Your task to perform on an android device: add a label to a message in the gmail app Image 0: 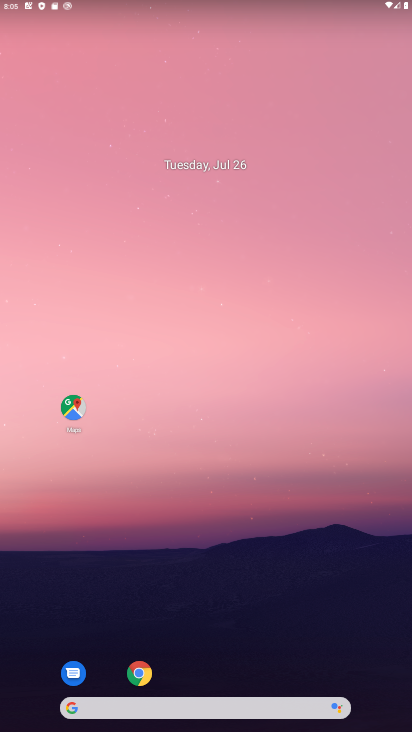
Step 0: drag from (332, 591) to (405, 92)
Your task to perform on an android device: add a label to a message in the gmail app Image 1: 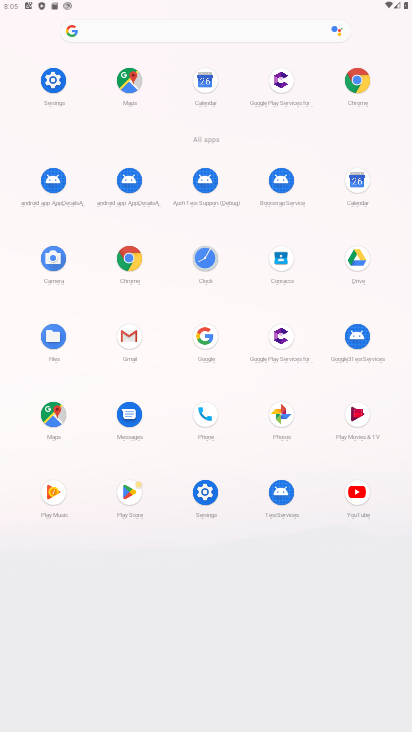
Step 1: click (134, 335)
Your task to perform on an android device: add a label to a message in the gmail app Image 2: 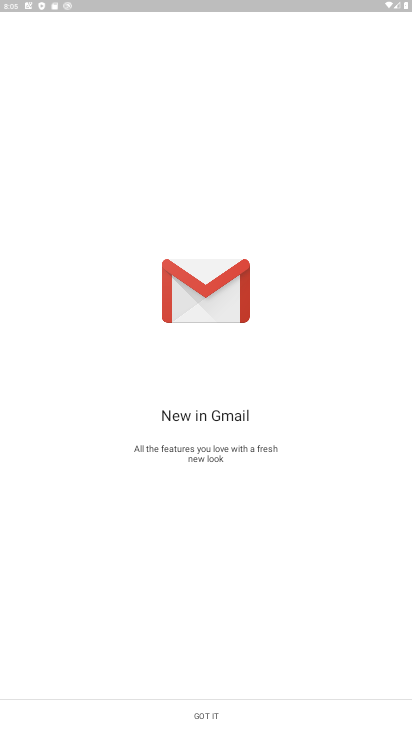
Step 2: click (220, 712)
Your task to perform on an android device: add a label to a message in the gmail app Image 3: 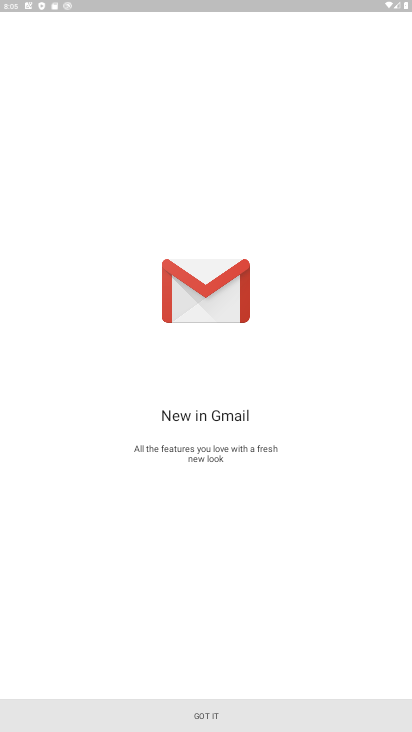
Step 3: click (220, 712)
Your task to perform on an android device: add a label to a message in the gmail app Image 4: 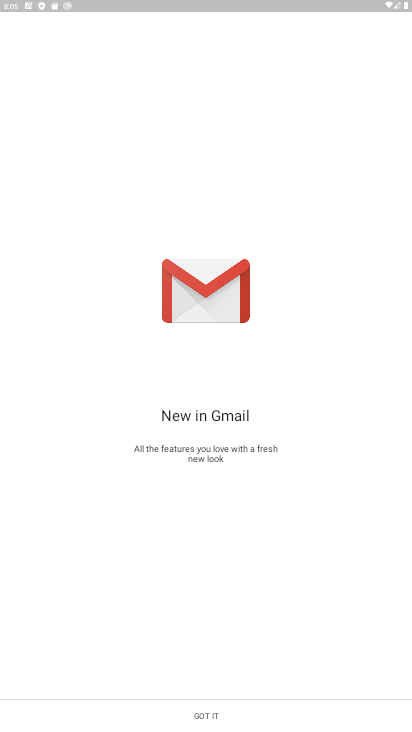
Step 4: click (220, 712)
Your task to perform on an android device: add a label to a message in the gmail app Image 5: 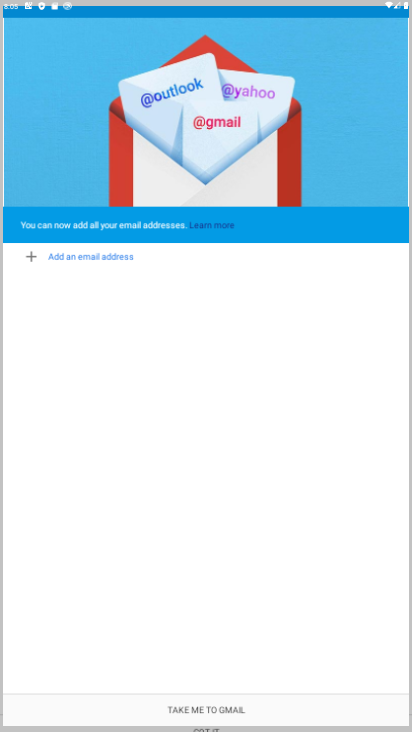
Step 5: click (220, 712)
Your task to perform on an android device: add a label to a message in the gmail app Image 6: 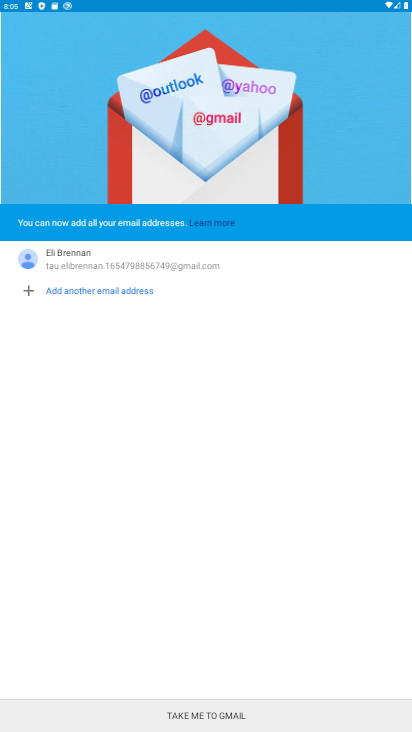
Step 6: click (220, 712)
Your task to perform on an android device: add a label to a message in the gmail app Image 7: 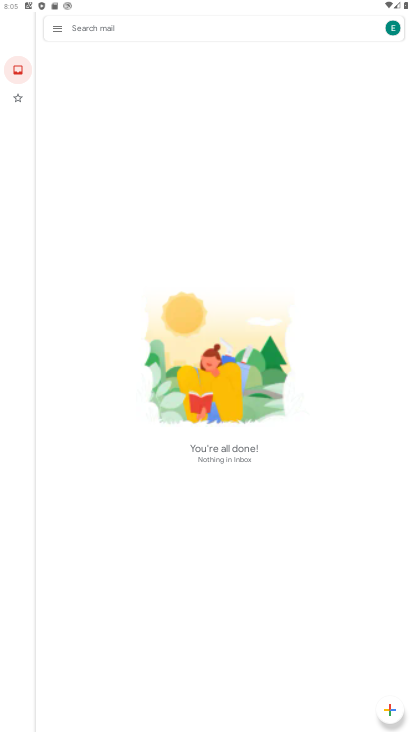
Step 7: task complete